Your task to perform on an android device: turn on priority inbox in the gmail app Image 0: 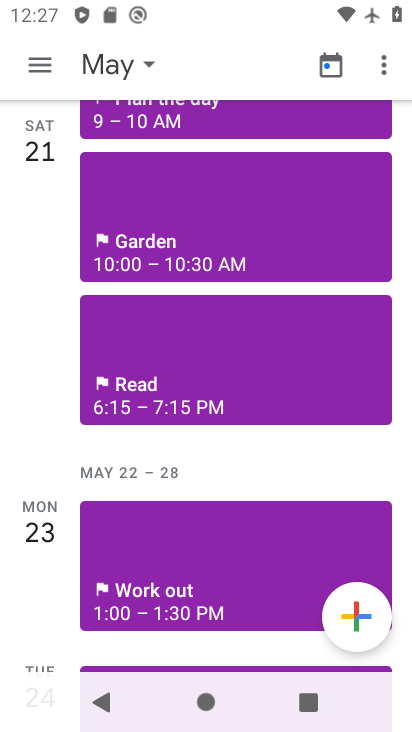
Step 0: press home button
Your task to perform on an android device: turn on priority inbox in the gmail app Image 1: 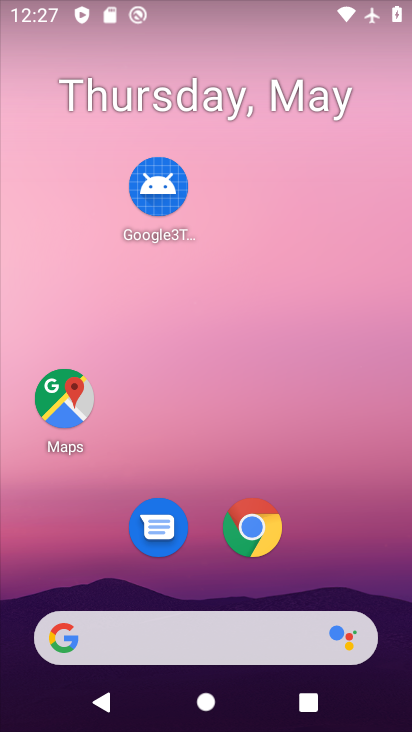
Step 1: drag from (204, 574) to (271, 167)
Your task to perform on an android device: turn on priority inbox in the gmail app Image 2: 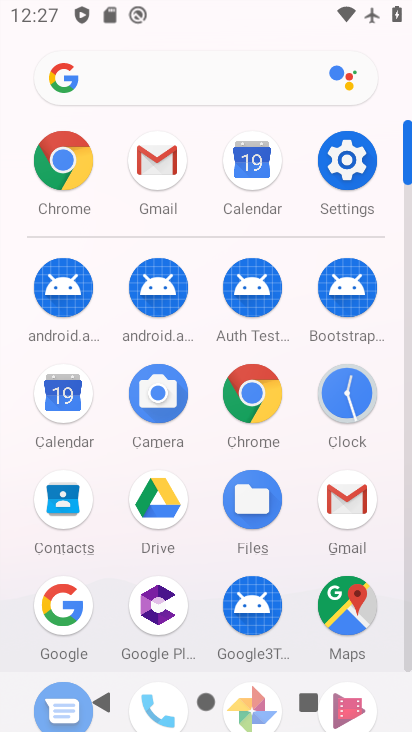
Step 2: click (151, 154)
Your task to perform on an android device: turn on priority inbox in the gmail app Image 3: 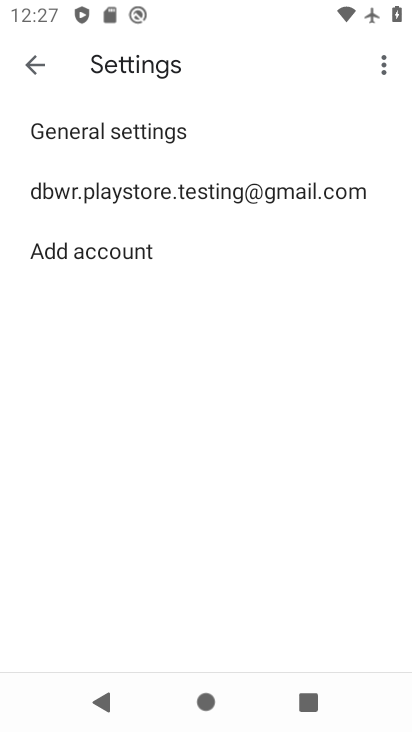
Step 3: click (221, 193)
Your task to perform on an android device: turn on priority inbox in the gmail app Image 4: 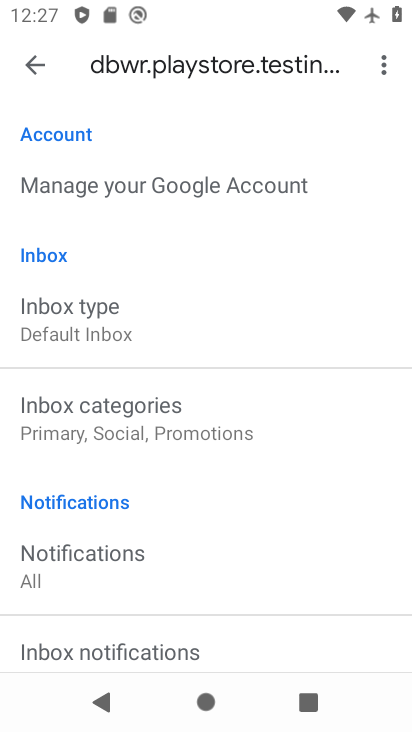
Step 4: click (139, 324)
Your task to perform on an android device: turn on priority inbox in the gmail app Image 5: 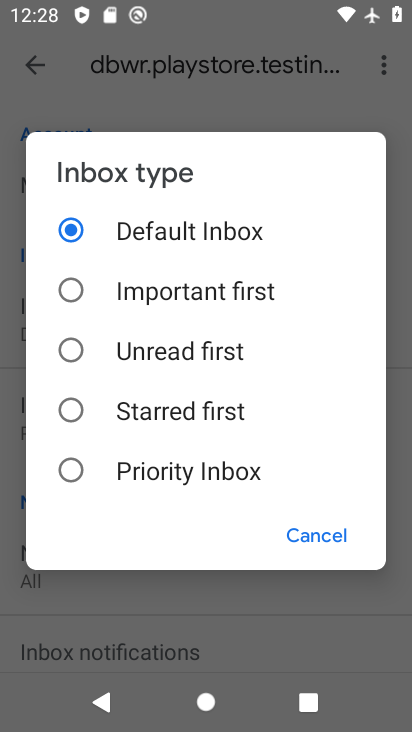
Step 5: click (65, 463)
Your task to perform on an android device: turn on priority inbox in the gmail app Image 6: 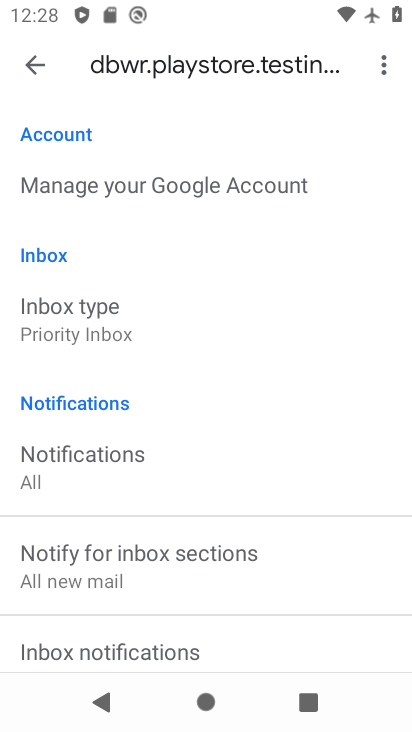
Step 6: task complete